Your task to perform on an android device: remove spam from my inbox in the gmail app Image 0: 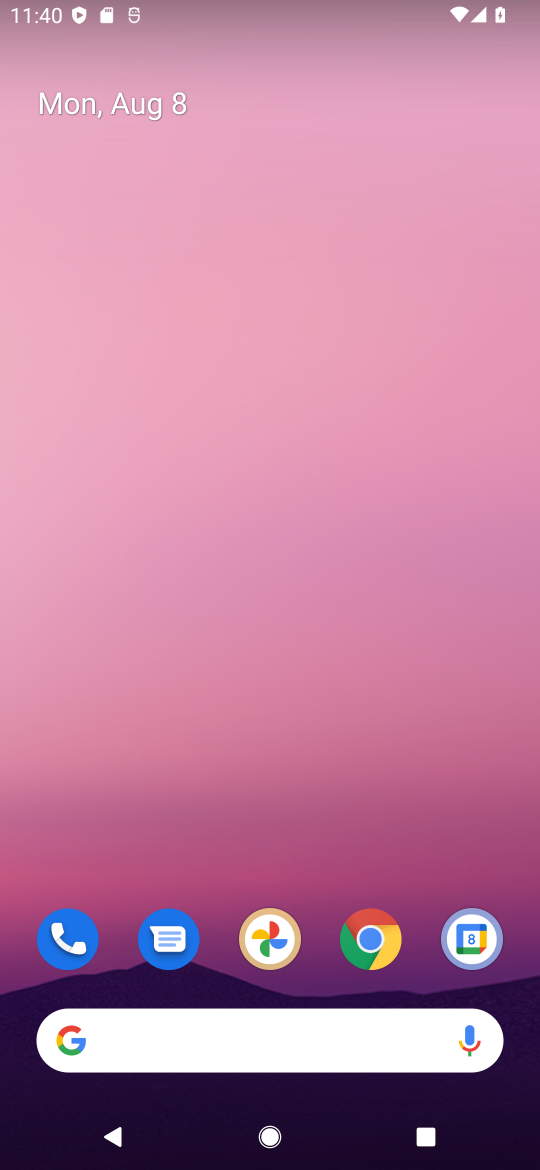
Step 0: drag from (256, 1057) to (305, 184)
Your task to perform on an android device: remove spam from my inbox in the gmail app Image 1: 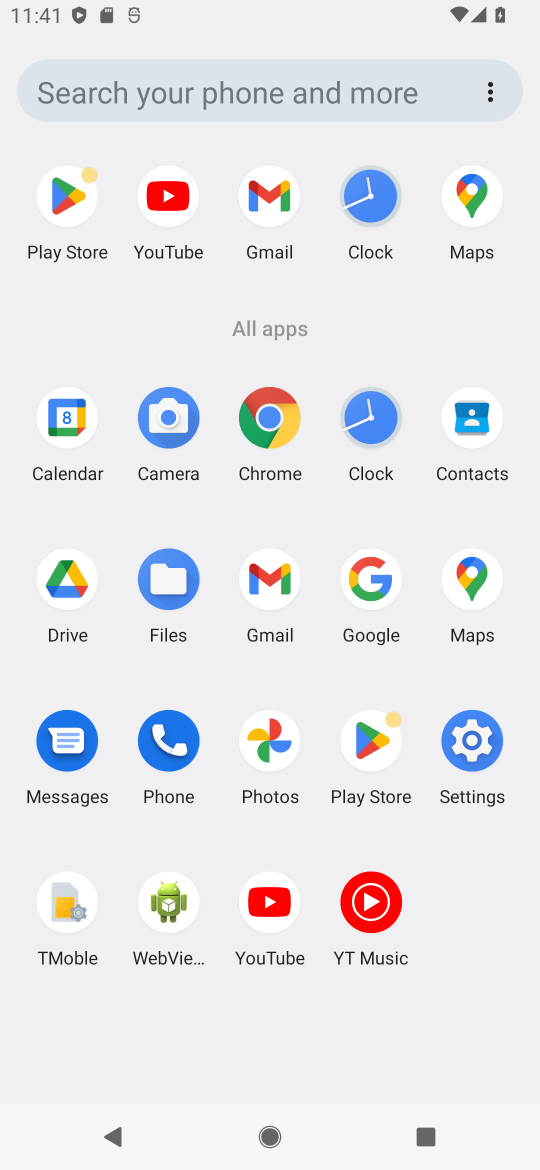
Step 1: click (269, 580)
Your task to perform on an android device: remove spam from my inbox in the gmail app Image 2: 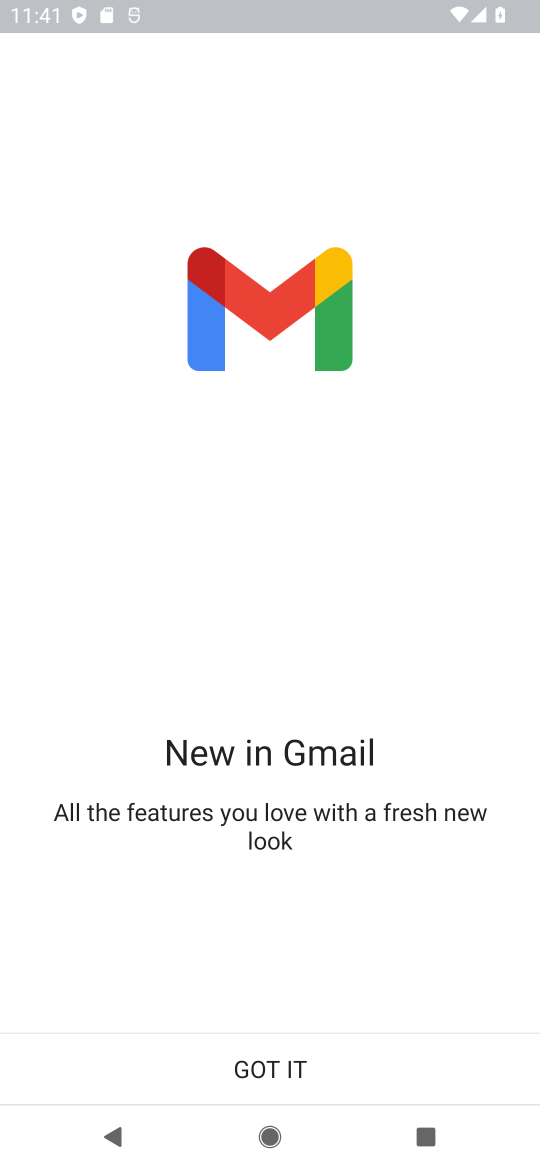
Step 2: click (280, 1067)
Your task to perform on an android device: remove spam from my inbox in the gmail app Image 3: 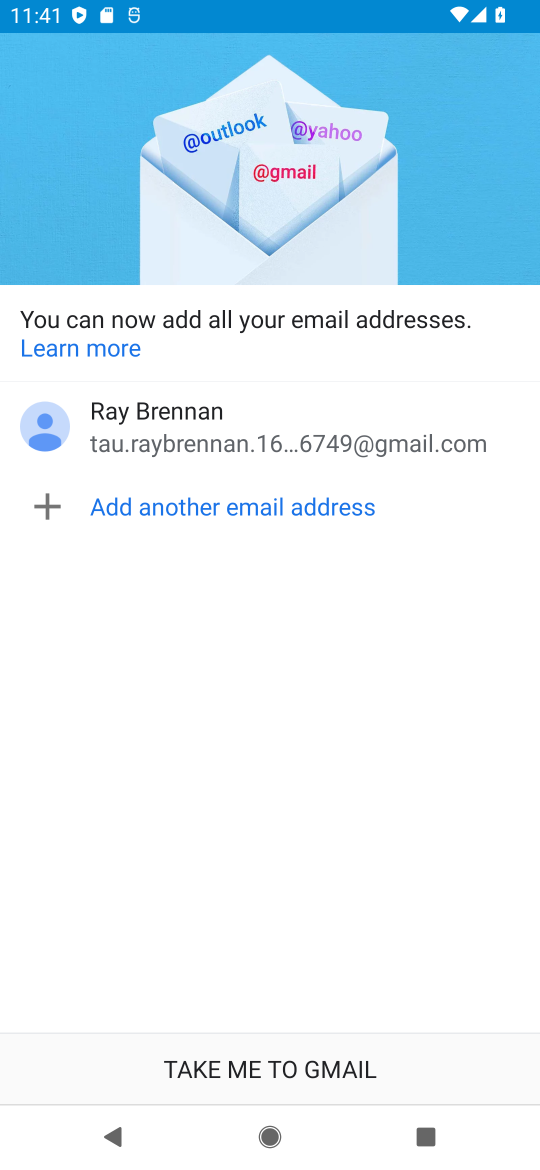
Step 3: click (280, 1067)
Your task to perform on an android device: remove spam from my inbox in the gmail app Image 4: 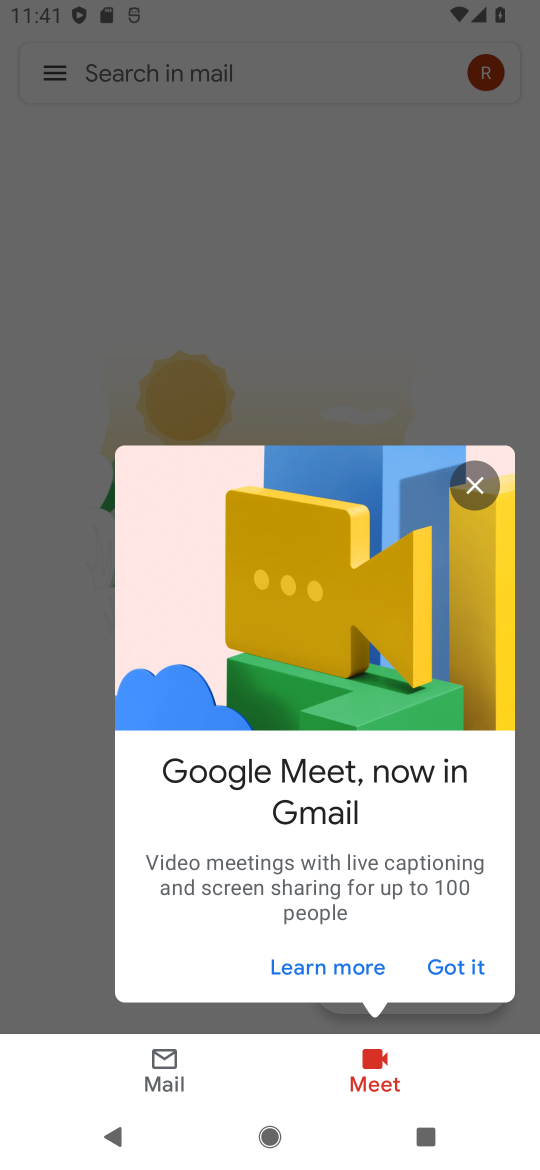
Step 4: click (443, 964)
Your task to perform on an android device: remove spam from my inbox in the gmail app Image 5: 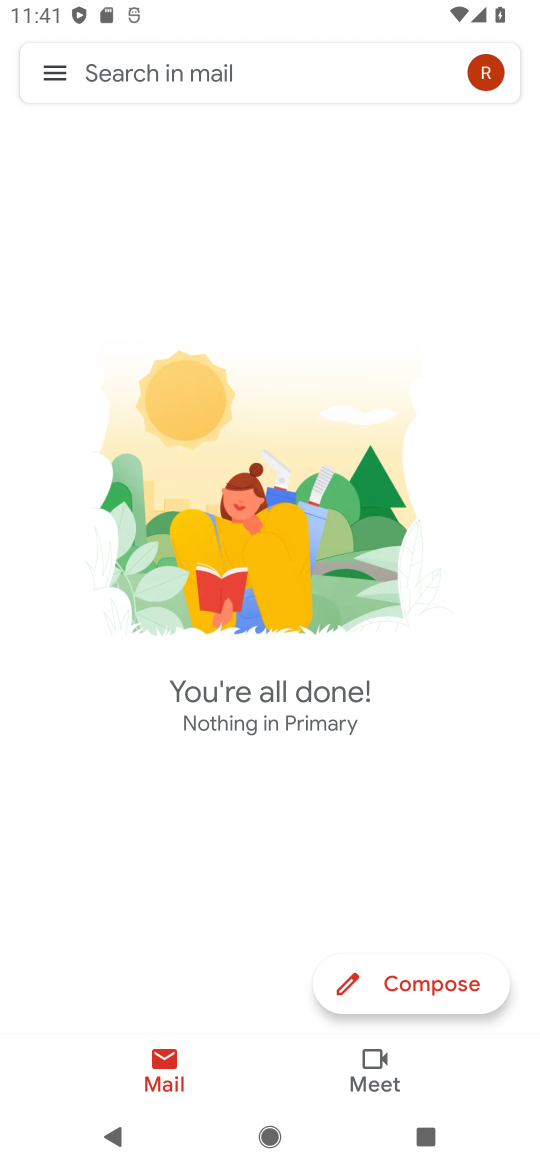
Step 5: click (59, 74)
Your task to perform on an android device: remove spam from my inbox in the gmail app Image 6: 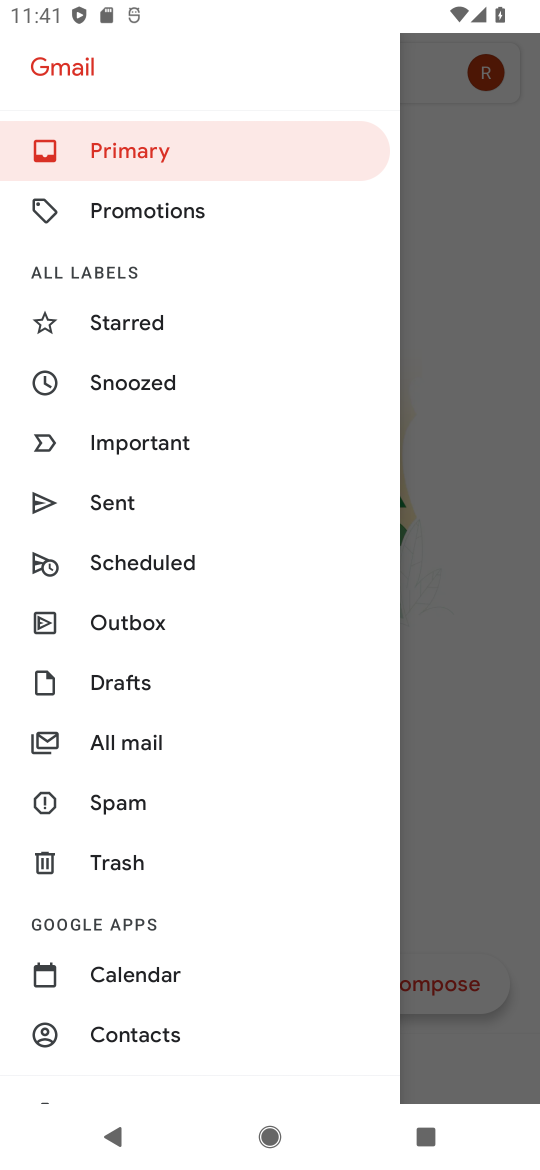
Step 6: click (129, 793)
Your task to perform on an android device: remove spam from my inbox in the gmail app Image 7: 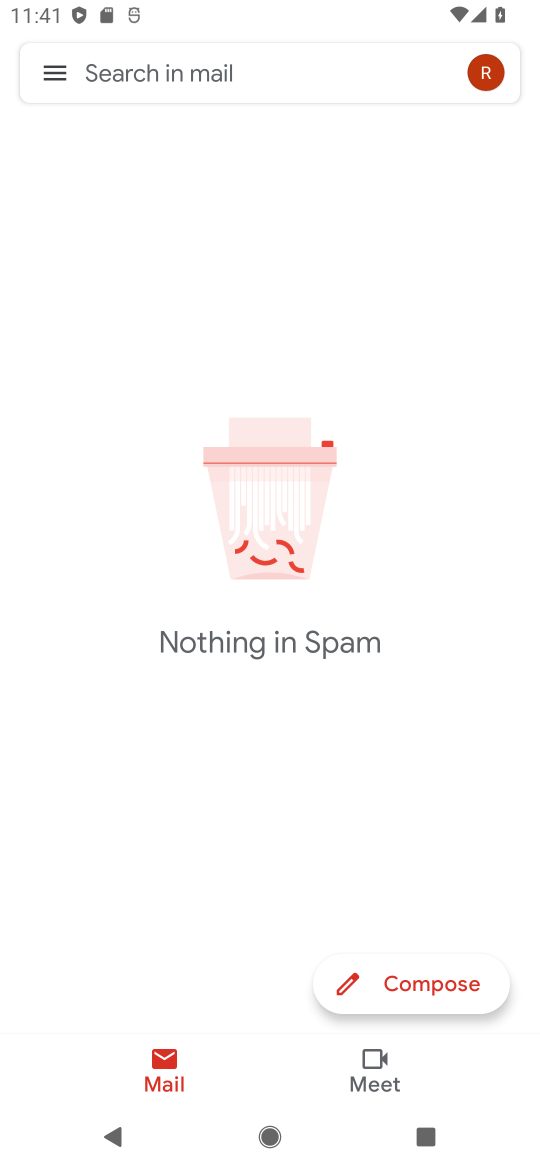
Step 7: task complete